Your task to perform on an android device: install app "Etsy: Buy & Sell Unique Items" Image 0: 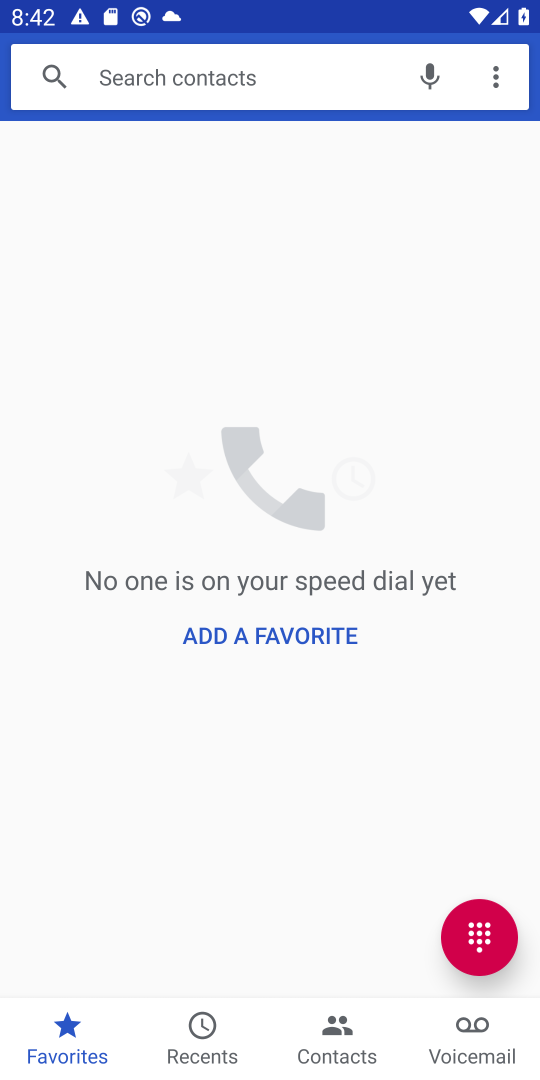
Step 0: press home button
Your task to perform on an android device: install app "Etsy: Buy & Sell Unique Items" Image 1: 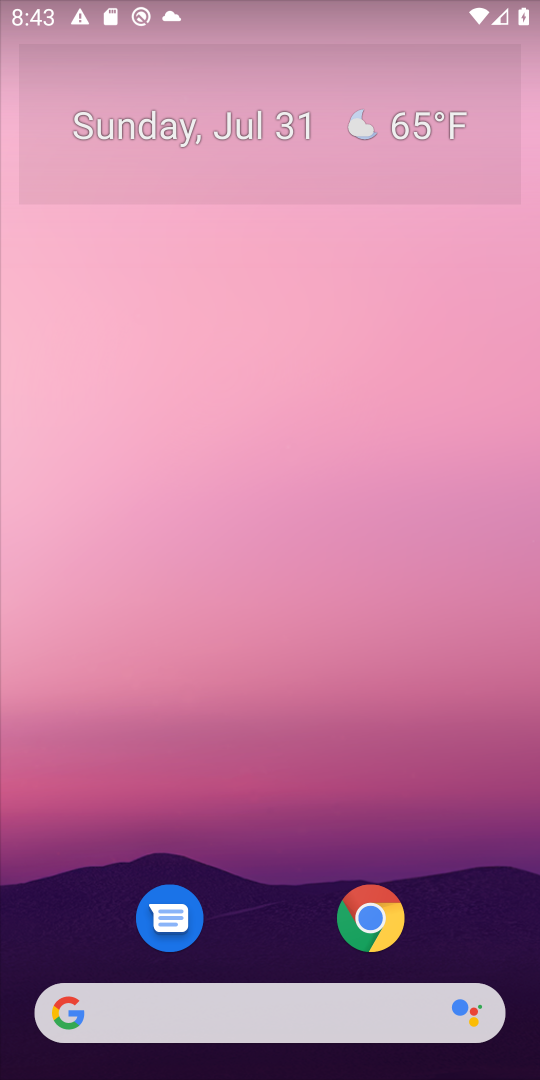
Step 1: drag from (286, 1069) to (442, 272)
Your task to perform on an android device: install app "Etsy: Buy & Sell Unique Items" Image 2: 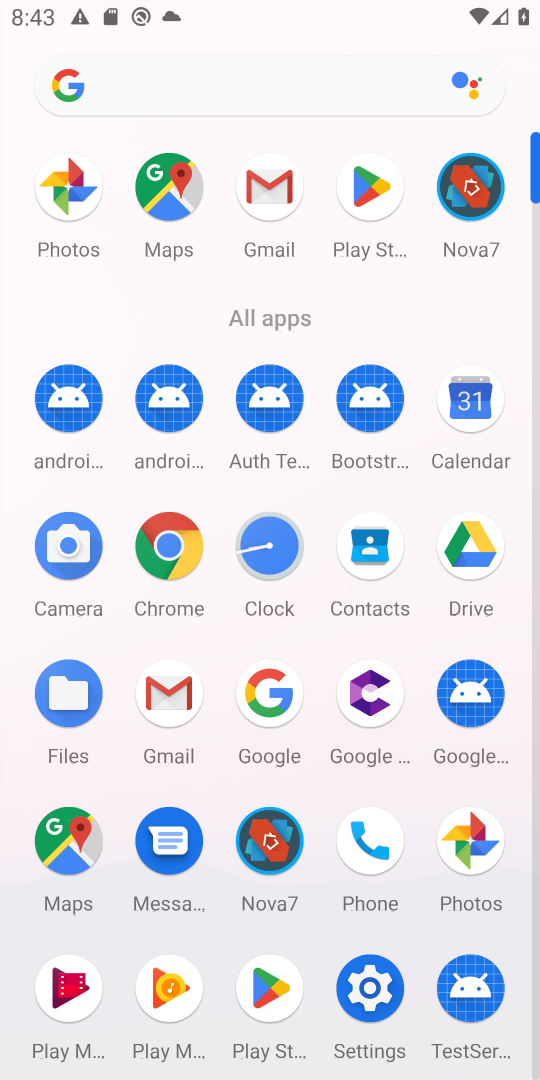
Step 2: click (350, 184)
Your task to perform on an android device: install app "Etsy: Buy & Sell Unique Items" Image 3: 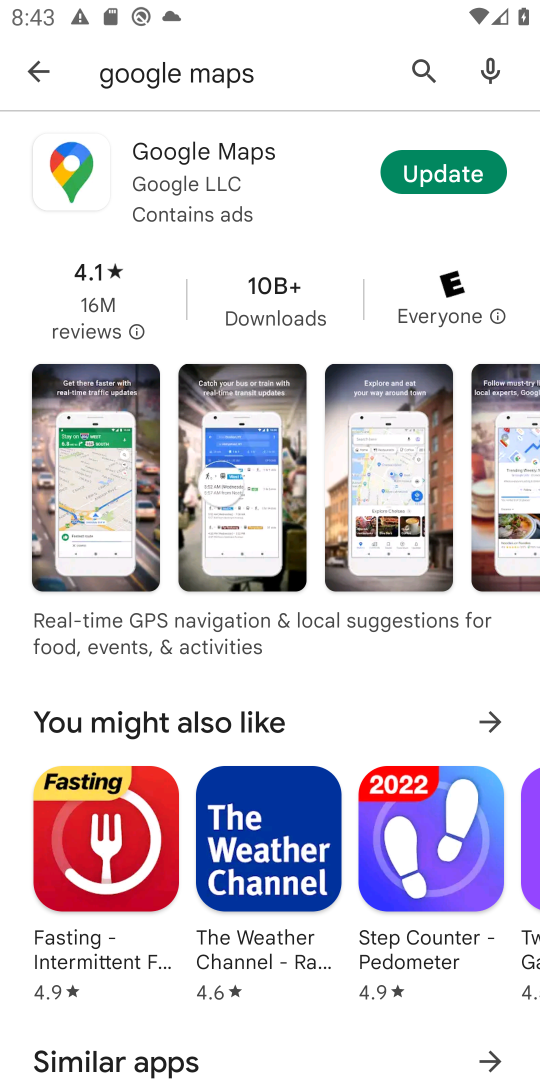
Step 3: click (414, 58)
Your task to perform on an android device: install app "Etsy: Buy & Sell Unique Items" Image 4: 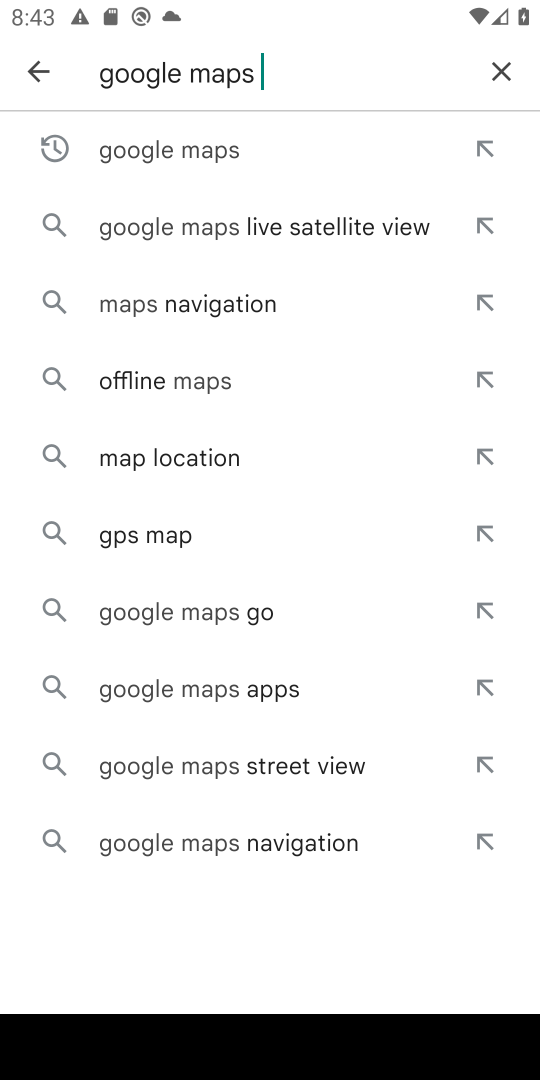
Step 4: click (493, 74)
Your task to perform on an android device: install app "Etsy: Buy & Sell Unique Items" Image 5: 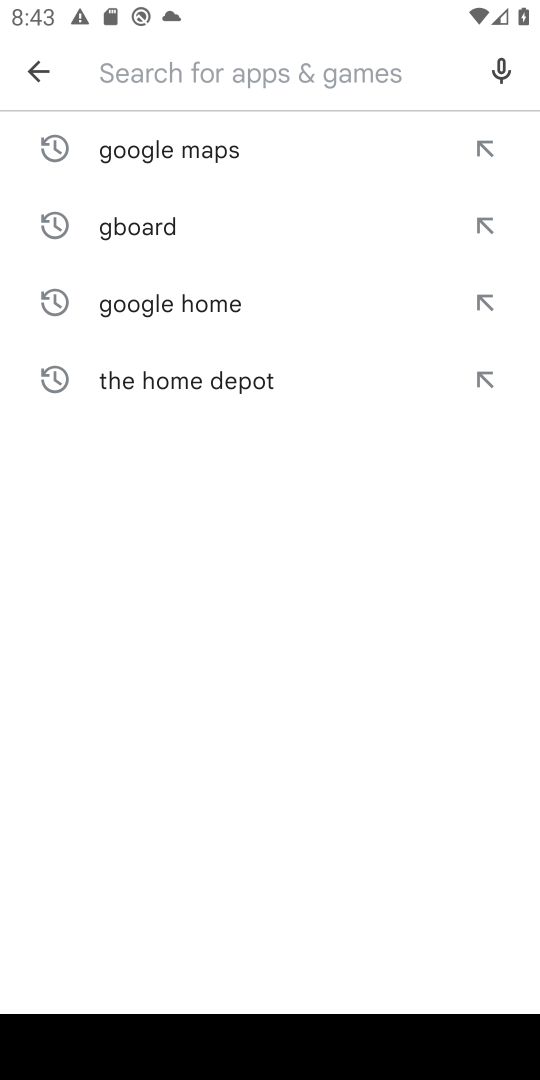
Step 5: type "Etsy: Buy & Sell Unique Items"
Your task to perform on an android device: install app "Etsy: Buy & Sell Unique Items" Image 6: 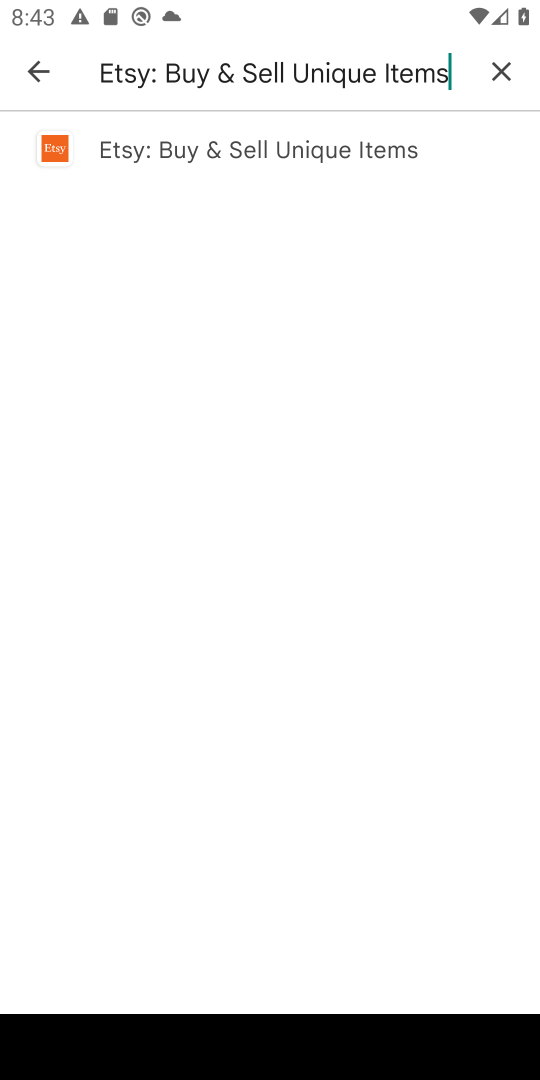
Step 6: click (361, 137)
Your task to perform on an android device: install app "Etsy: Buy & Sell Unique Items" Image 7: 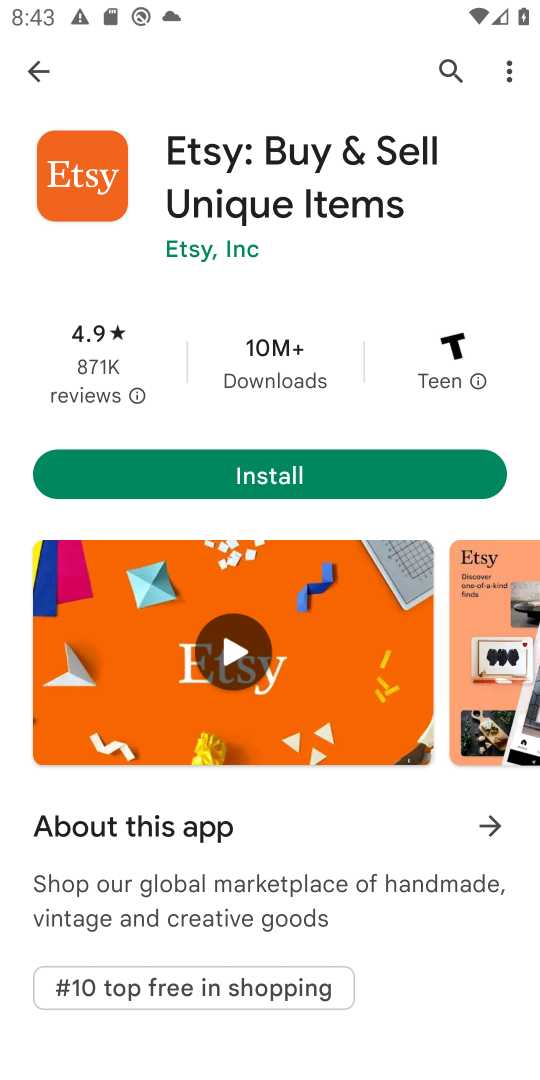
Step 7: click (350, 468)
Your task to perform on an android device: install app "Etsy: Buy & Sell Unique Items" Image 8: 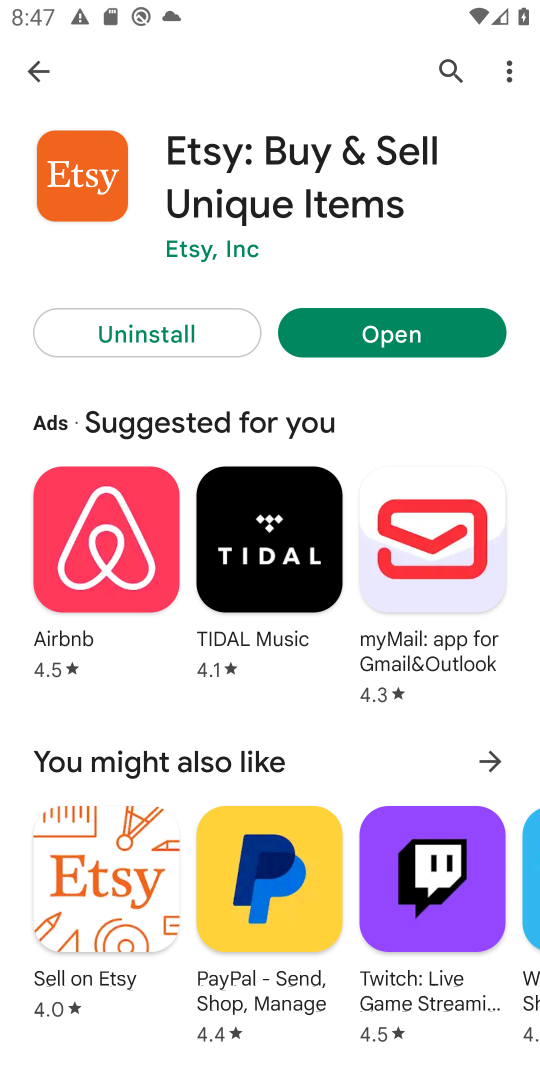
Step 8: task complete